Your task to perform on an android device: turn on location history Image 0: 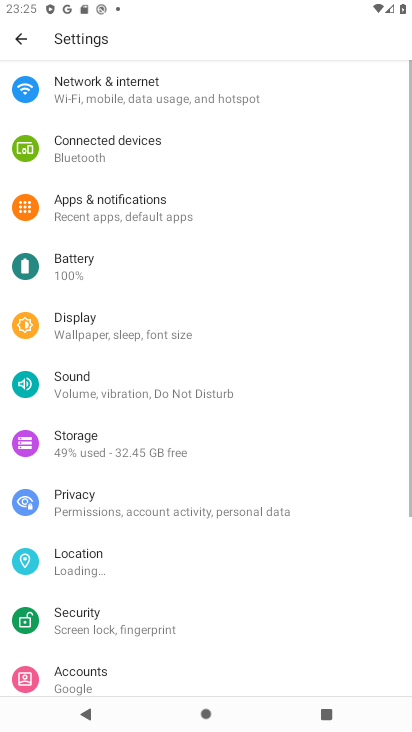
Step 0: press home button
Your task to perform on an android device: turn on location history Image 1: 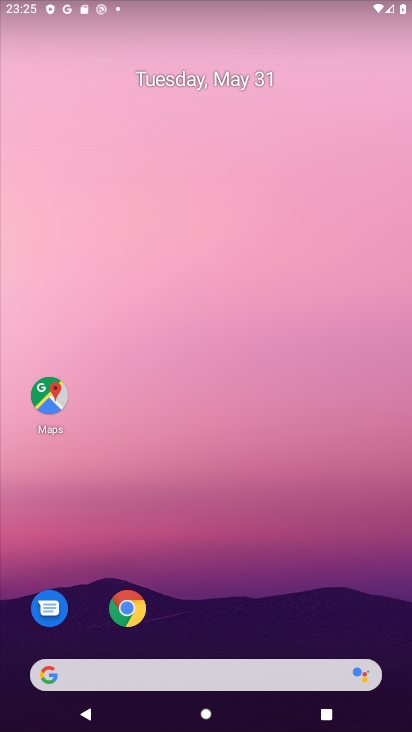
Step 1: click (51, 410)
Your task to perform on an android device: turn on location history Image 2: 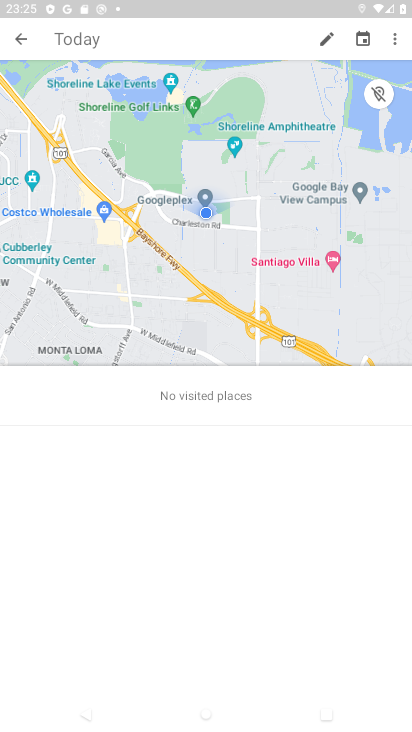
Step 2: click (386, 38)
Your task to perform on an android device: turn on location history Image 3: 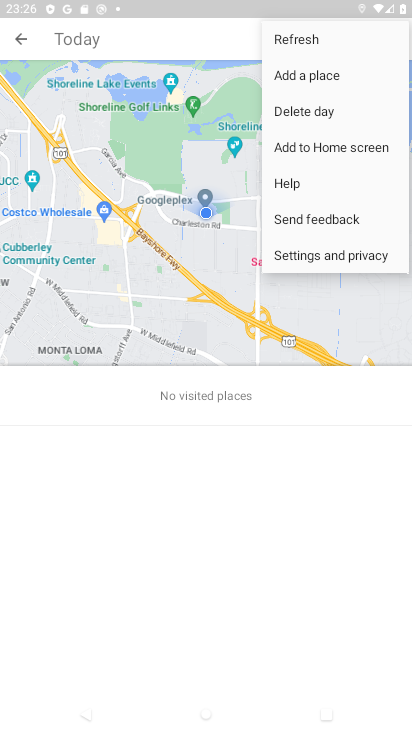
Step 3: click (304, 255)
Your task to perform on an android device: turn on location history Image 4: 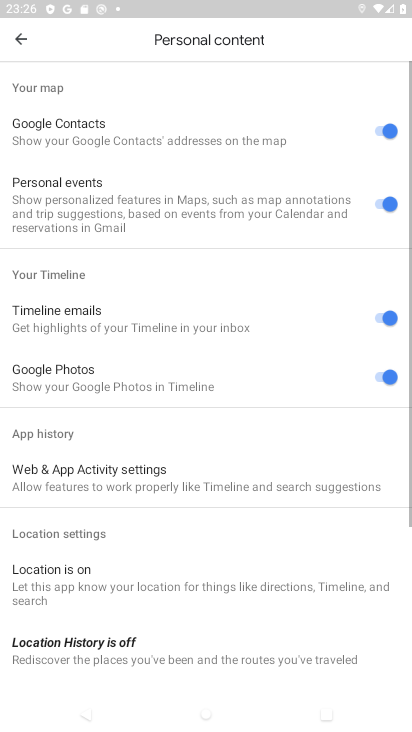
Step 4: drag from (144, 472) to (111, 112)
Your task to perform on an android device: turn on location history Image 5: 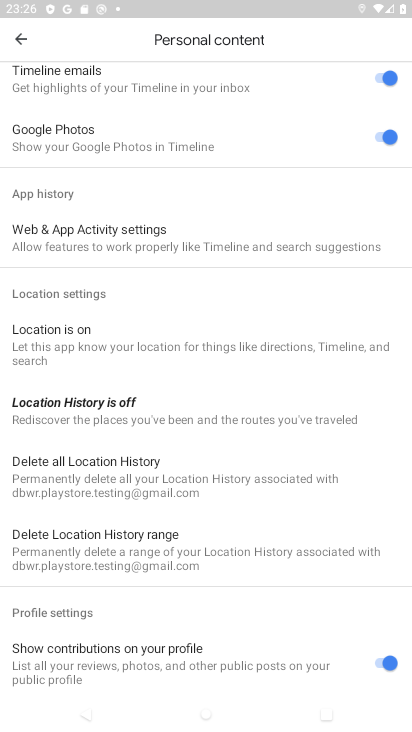
Step 5: click (110, 409)
Your task to perform on an android device: turn on location history Image 6: 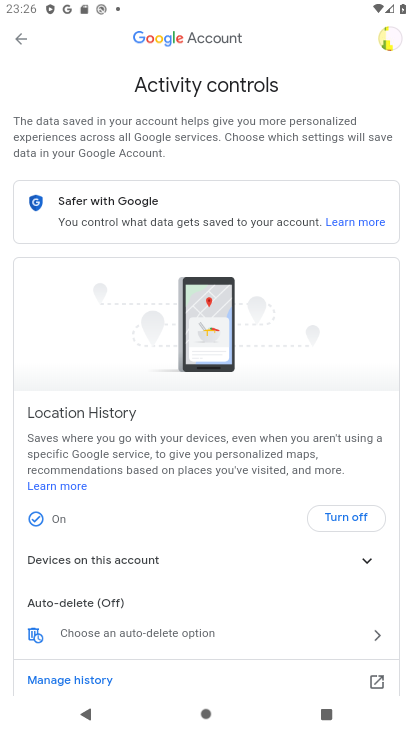
Step 6: task complete